Your task to perform on an android device: delete a single message in the gmail app Image 0: 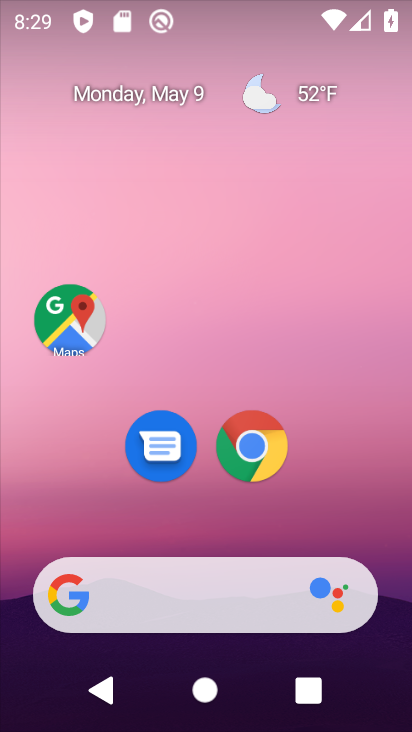
Step 0: drag from (384, 656) to (303, 275)
Your task to perform on an android device: delete a single message in the gmail app Image 1: 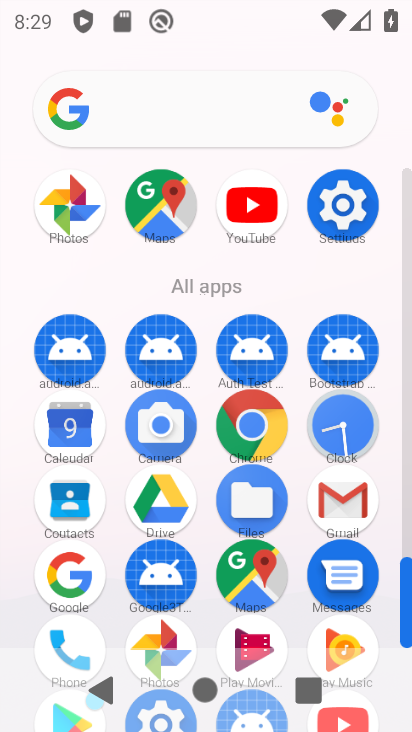
Step 1: click (338, 497)
Your task to perform on an android device: delete a single message in the gmail app Image 2: 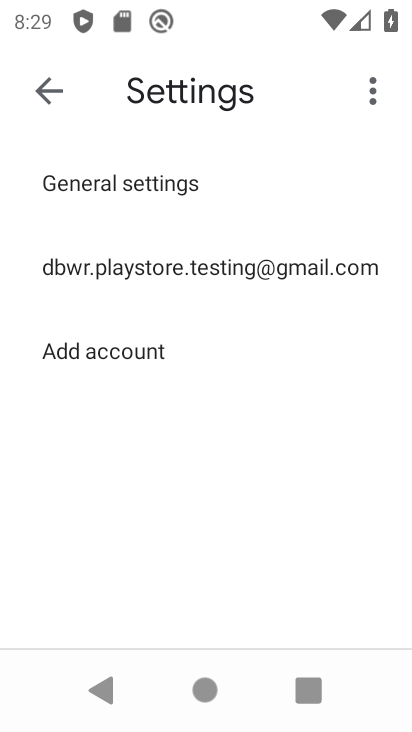
Step 2: press back button
Your task to perform on an android device: delete a single message in the gmail app Image 3: 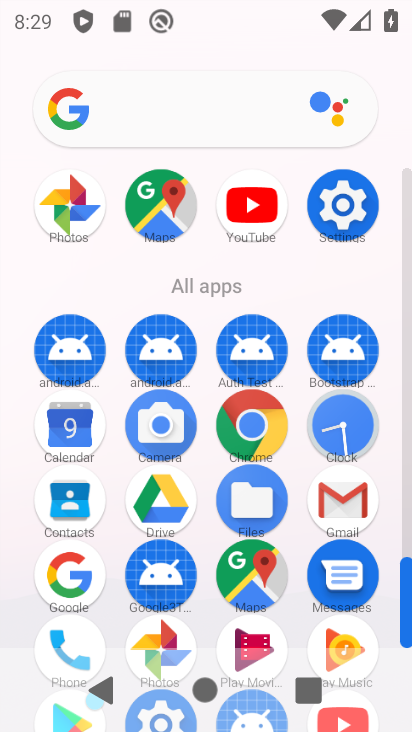
Step 3: click (344, 504)
Your task to perform on an android device: delete a single message in the gmail app Image 4: 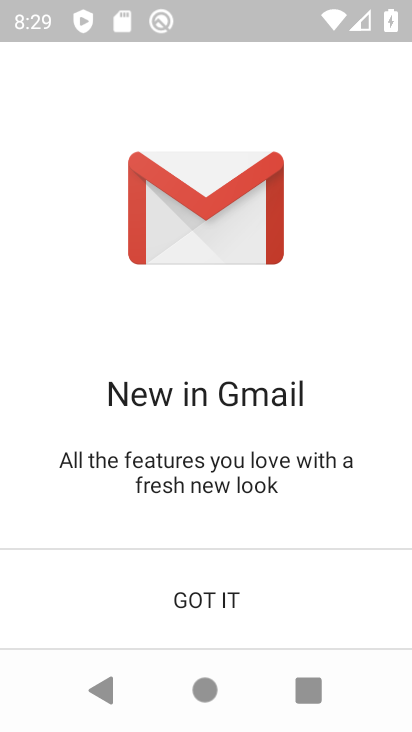
Step 4: click (211, 594)
Your task to perform on an android device: delete a single message in the gmail app Image 5: 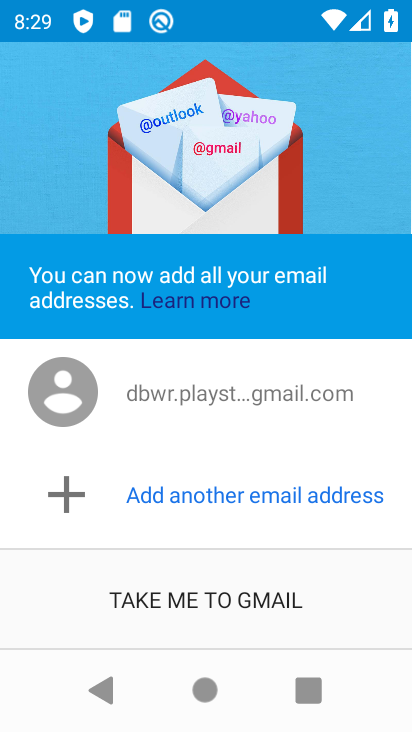
Step 5: click (211, 594)
Your task to perform on an android device: delete a single message in the gmail app Image 6: 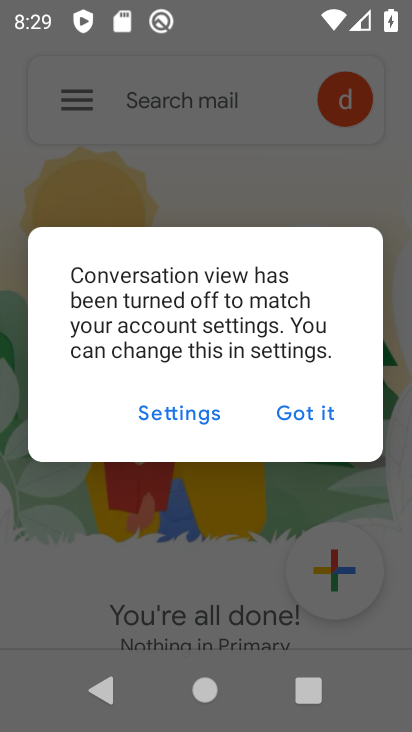
Step 6: click (305, 409)
Your task to perform on an android device: delete a single message in the gmail app Image 7: 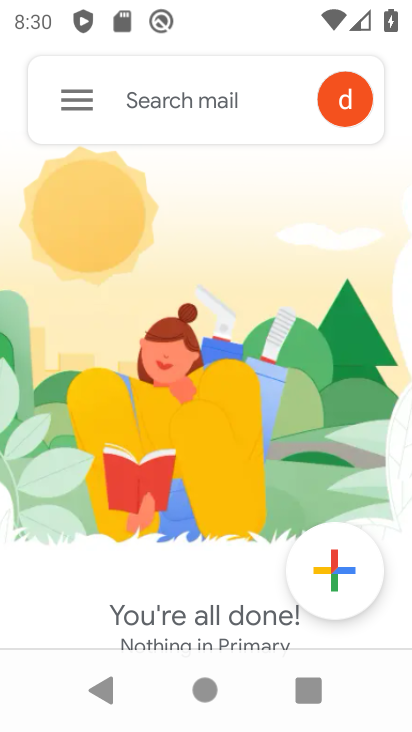
Step 7: click (73, 101)
Your task to perform on an android device: delete a single message in the gmail app Image 8: 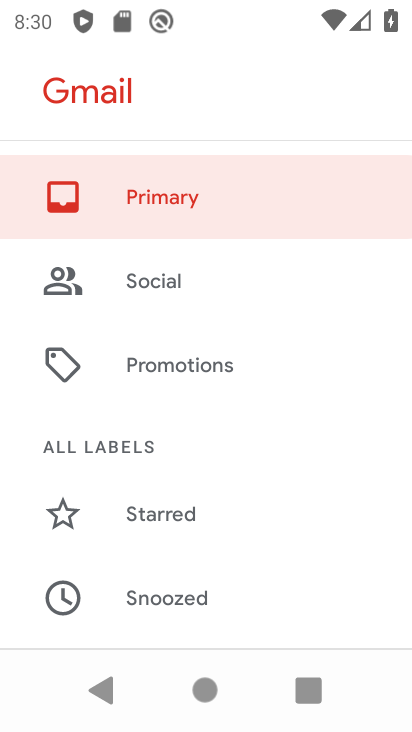
Step 8: click (166, 201)
Your task to perform on an android device: delete a single message in the gmail app Image 9: 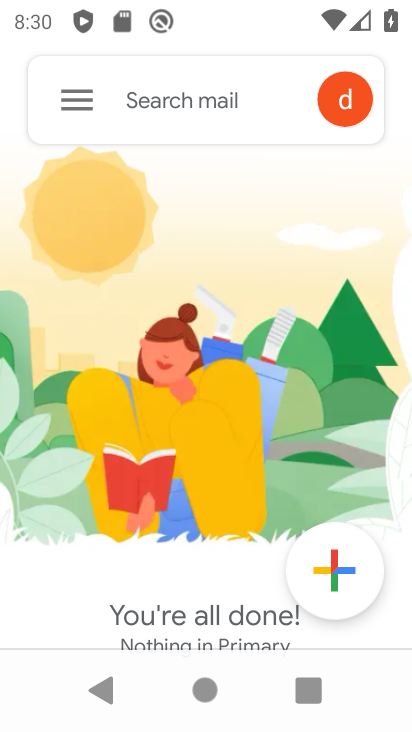
Step 9: task complete